Your task to perform on an android device: show emergency info Image 0: 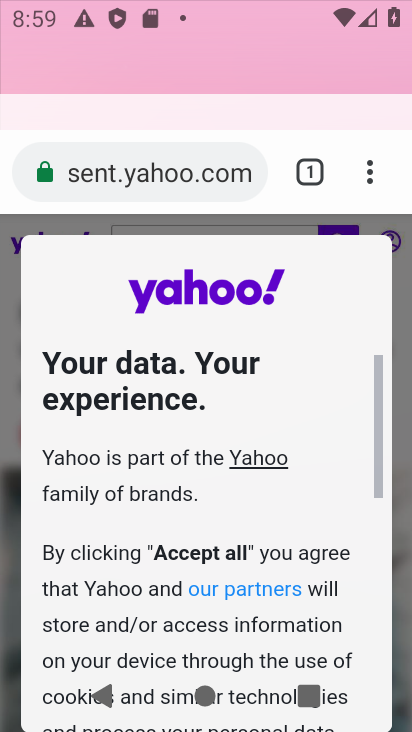
Step 0: drag from (272, 290) to (250, 33)
Your task to perform on an android device: show emergency info Image 1: 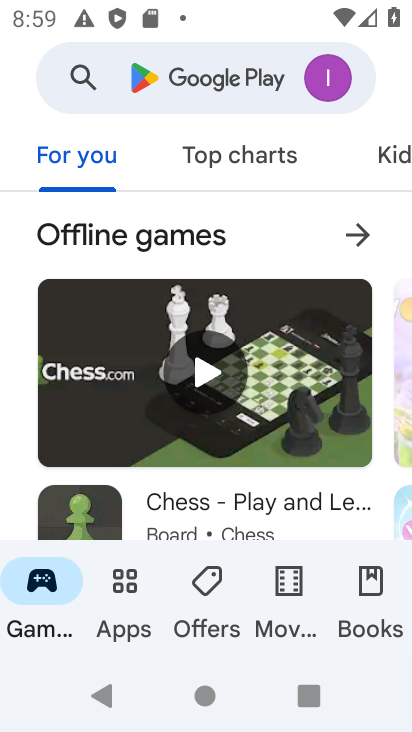
Step 1: press home button
Your task to perform on an android device: show emergency info Image 2: 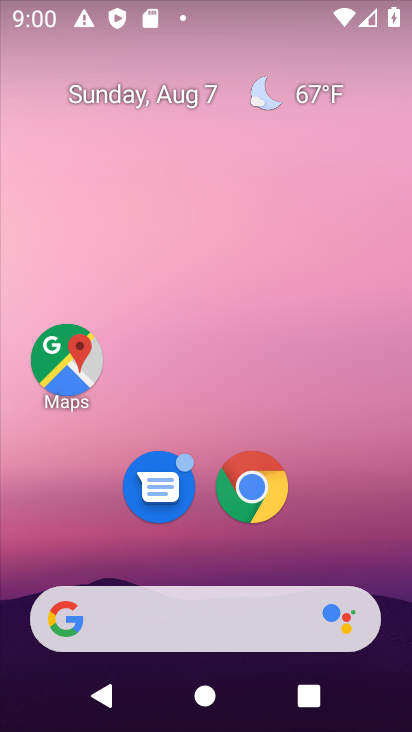
Step 2: drag from (355, 627) to (335, 104)
Your task to perform on an android device: show emergency info Image 3: 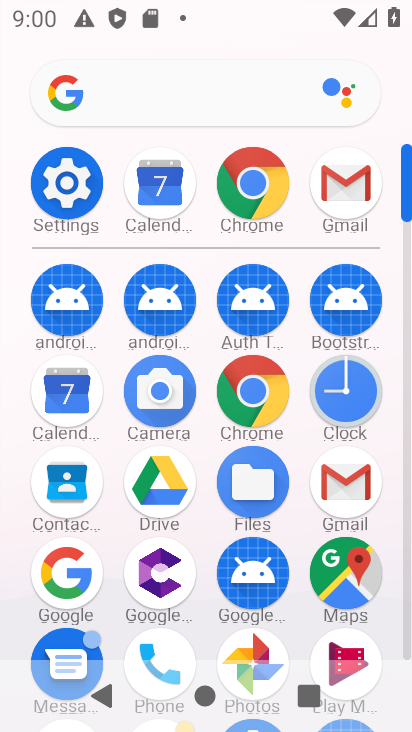
Step 3: click (62, 201)
Your task to perform on an android device: show emergency info Image 4: 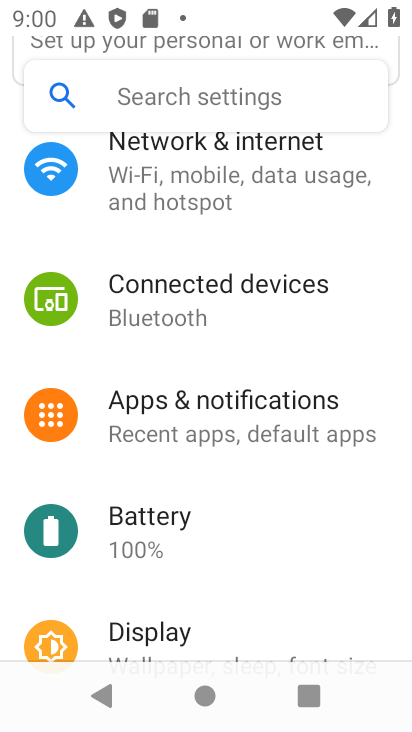
Step 4: drag from (336, 633) to (232, 101)
Your task to perform on an android device: show emergency info Image 5: 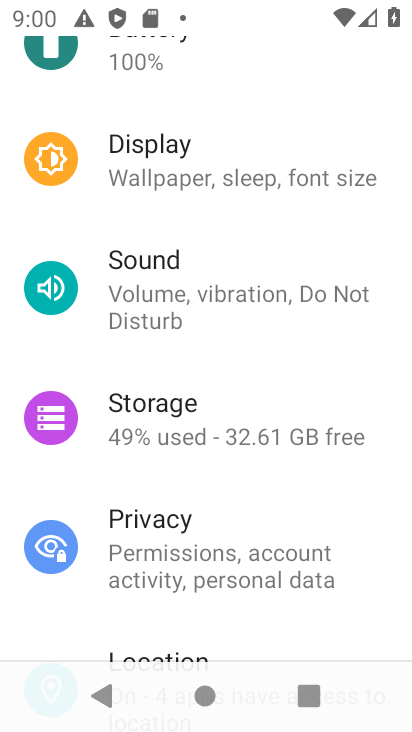
Step 5: drag from (308, 634) to (282, 240)
Your task to perform on an android device: show emergency info Image 6: 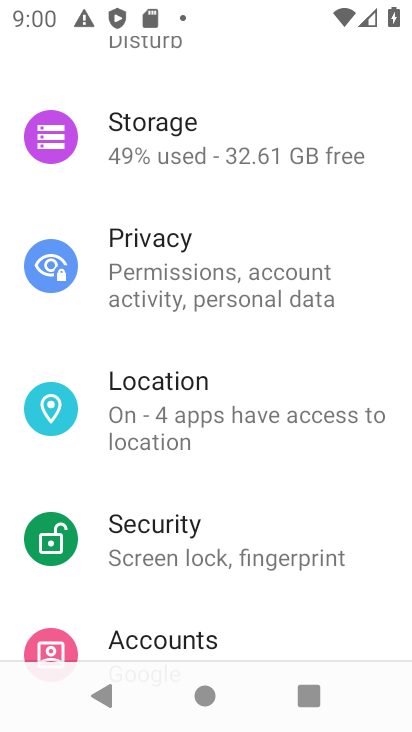
Step 6: drag from (320, 611) to (314, 294)
Your task to perform on an android device: show emergency info Image 7: 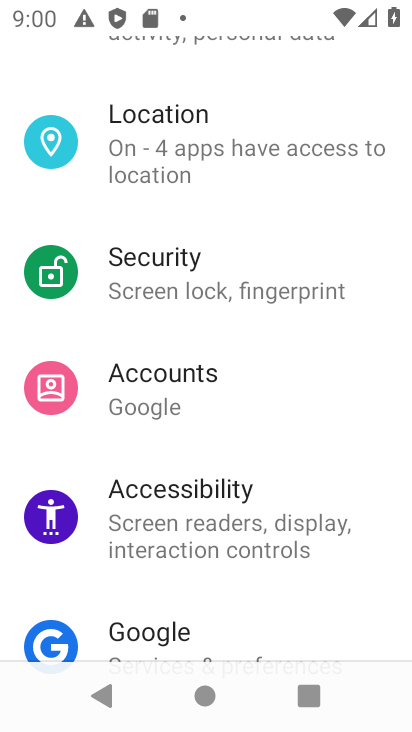
Step 7: drag from (291, 613) to (213, 106)
Your task to perform on an android device: show emergency info Image 8: 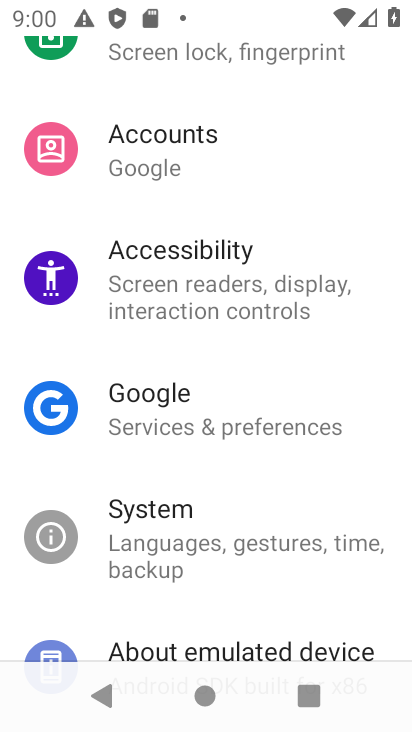
Step 8: click (228, 647)
Your task to perform on an android device: show emergency info Image 9: 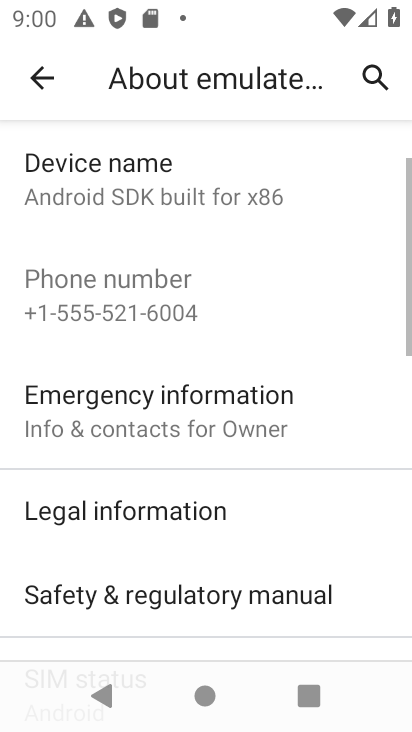
Step 9: click (191, 421)
Your task to perform on an android device: show emergency info Image 10: 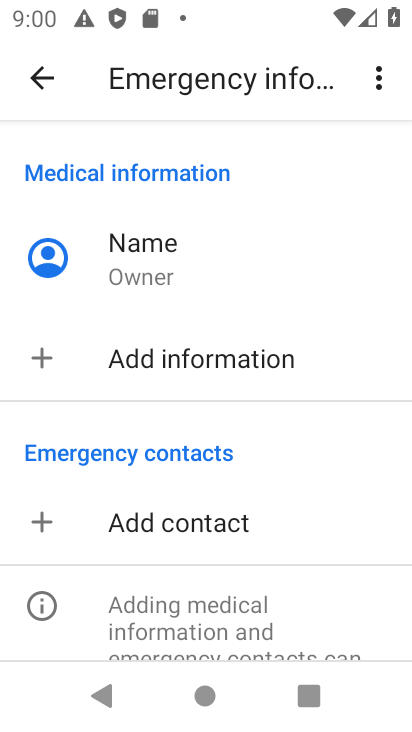
Step 10: task complete